Your task to perform on an android device: Do I have any events this weekend? Image 0: 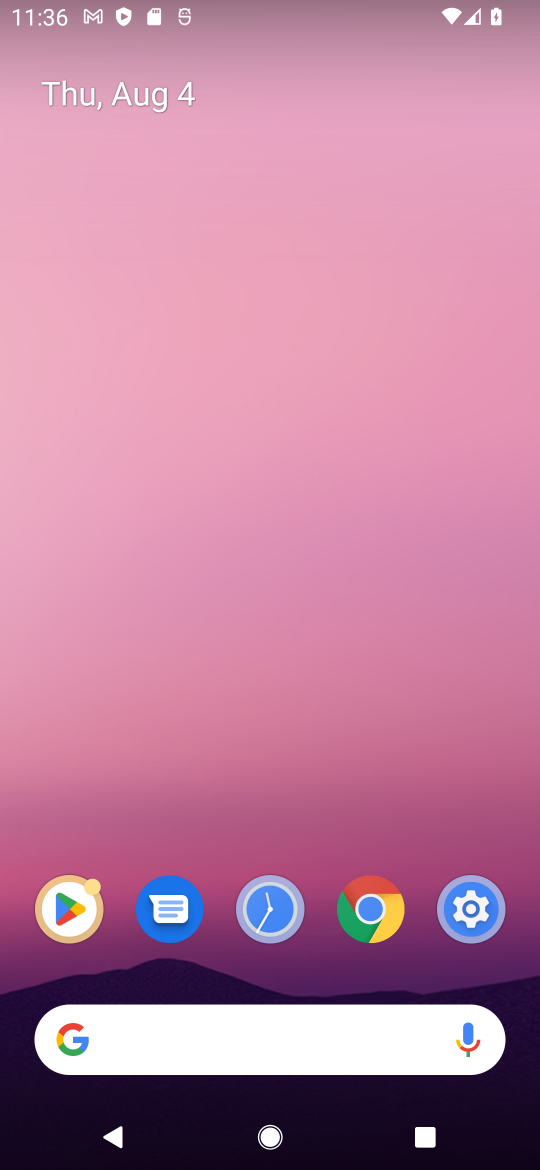
Step 0: drag from (374, 1062) to (358, 75)
Your task to perform on an android device: Do I have any events this weekend? Image 1: 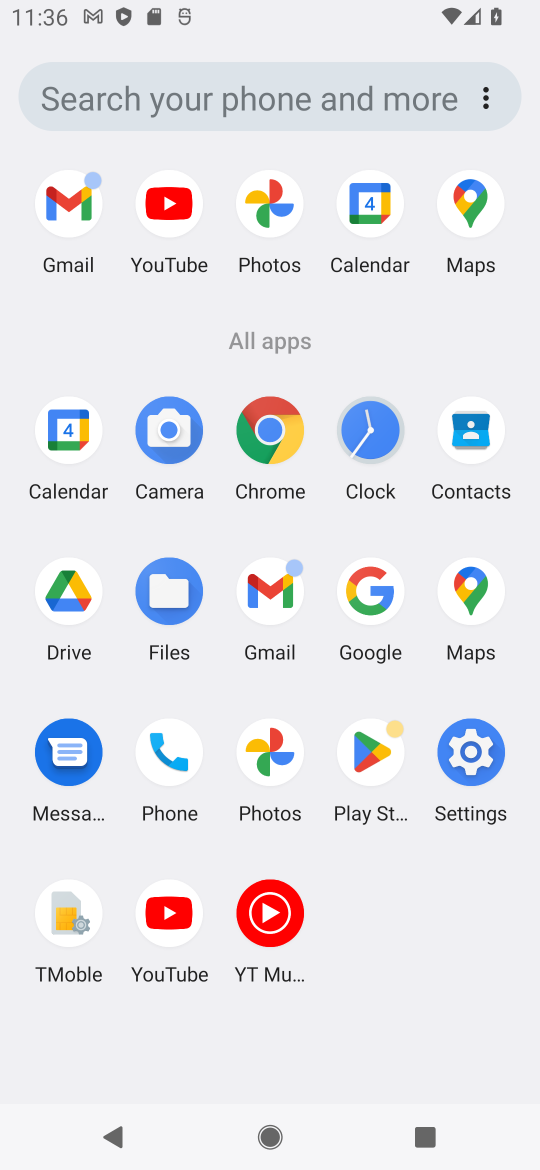
Step 1: click (75, 453)
Your task to perform on an android device: Do I have any events this weekend? Image 2: 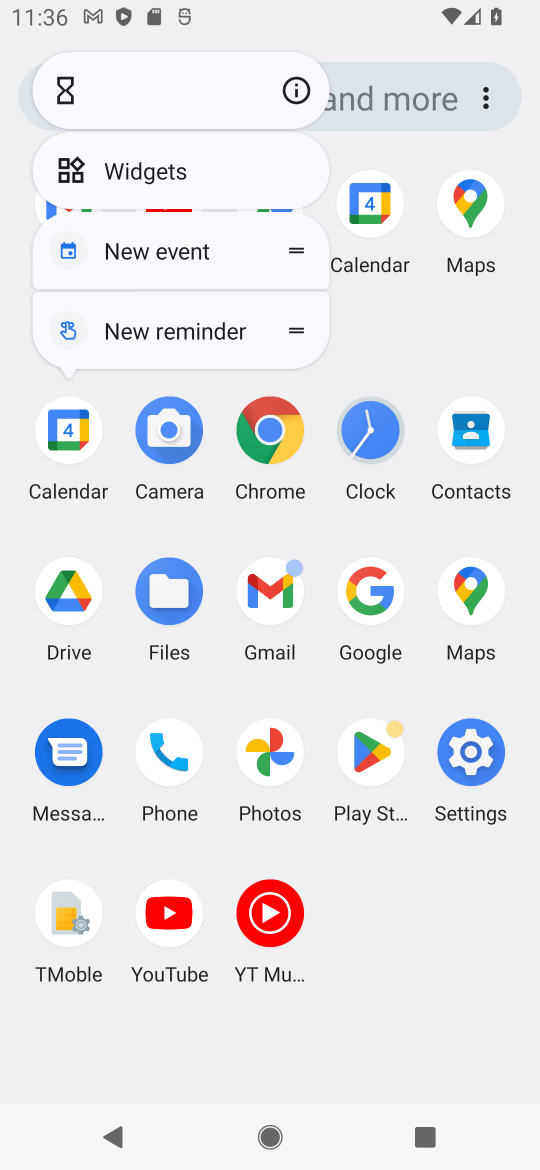
Step 2: click (75, 453)
Your task to perform on an android device: Do I have any events this weekend? Image 3: 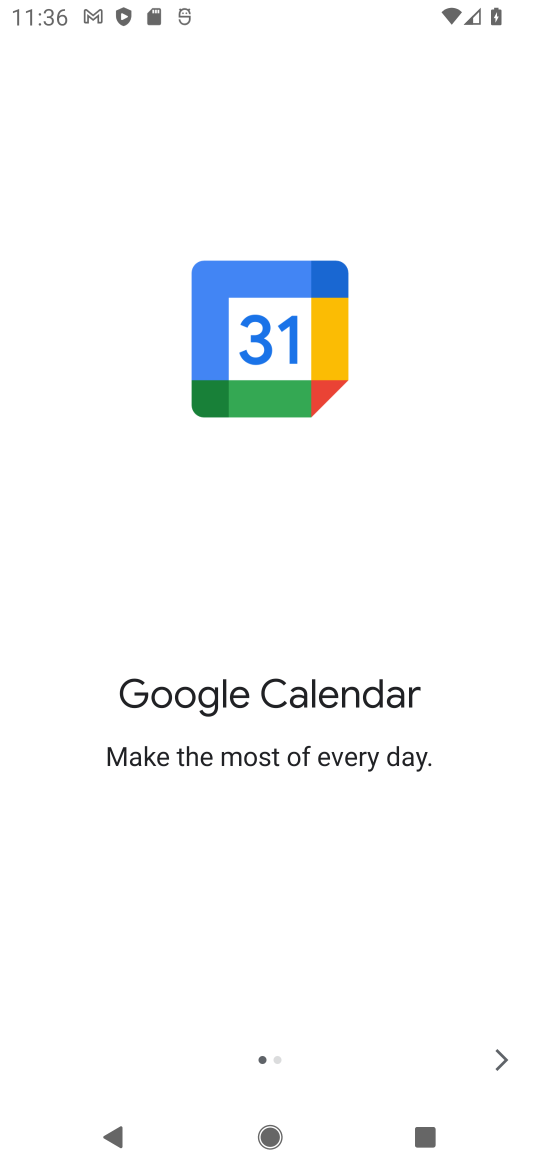
Step 3: click (517, 1065)
Your task to perform on an android device: Do I have any events this weekend? Image 4: 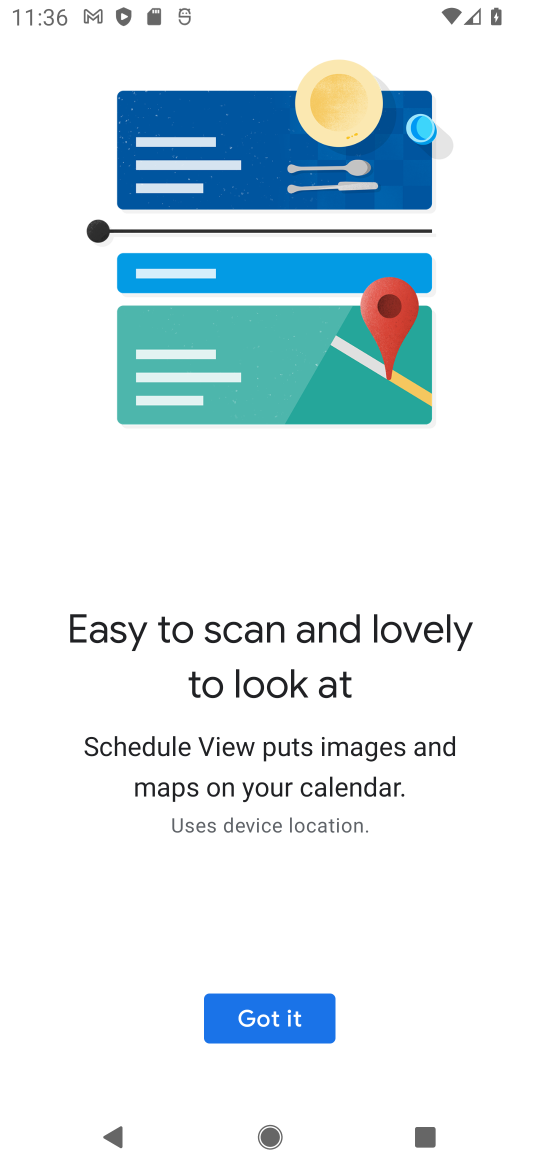
Step 4: click (312, 1015)
Your task to perform on an android device: Do I have any events this weekend? Image 5: 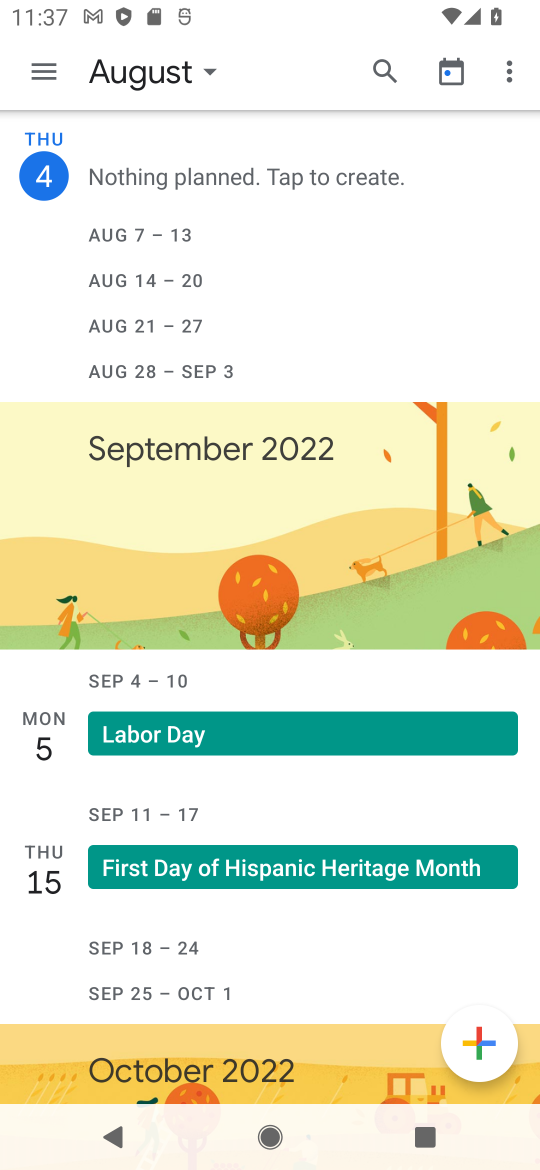
Step 5: task complete